Your task to perform on an android device: delete location history Image 0: 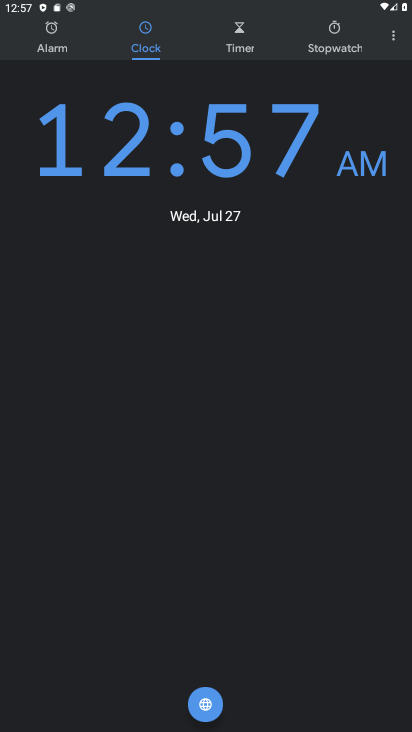
Step 0: press home button
Your task to perform on an android device: delete location history Image 1: 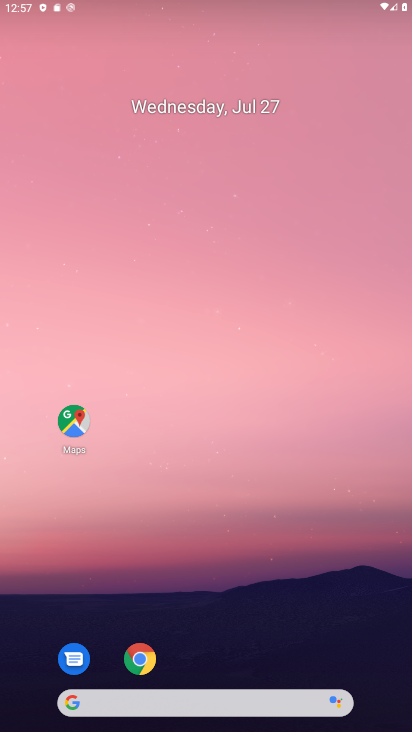
Step 1: drag from (268, 578) to (371, 87)
Your task to perform on an android device: delete location history Image 2: 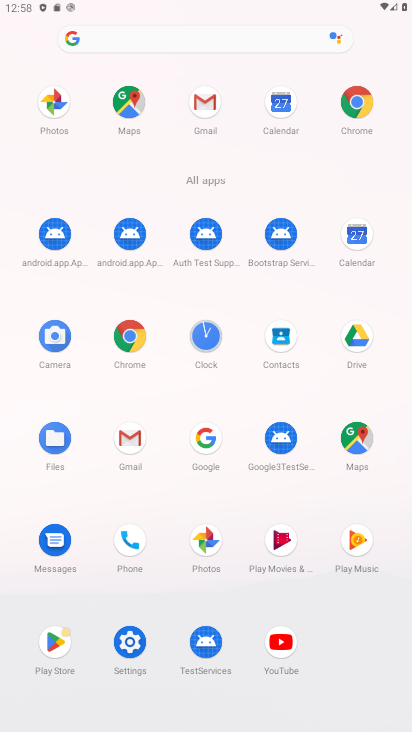
Step 2: click (358, 436)
Your task to perform on an android device: delete location history Image 3: 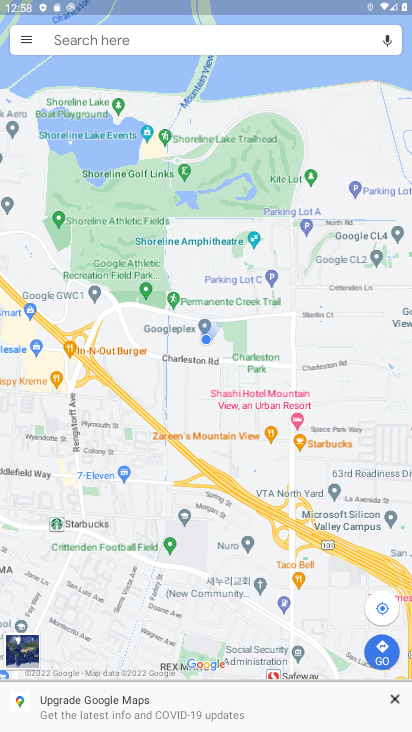
Step 3: click (31, 40)
Your task to perform on an android device: delete location history Image 4: 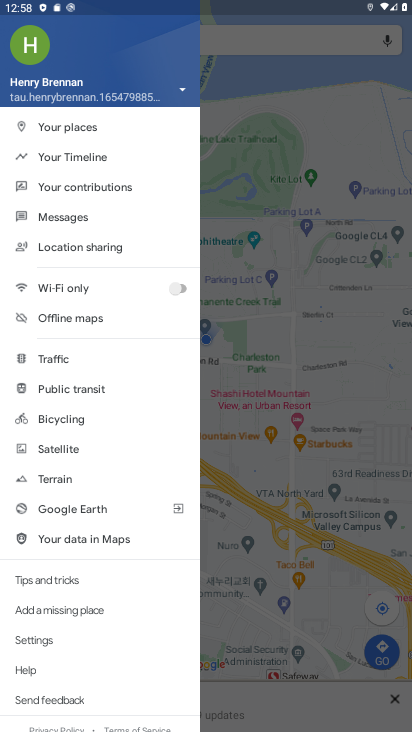
Step 4: click (99, 165)
Your task to perform on an android device: delete location history Image 5: 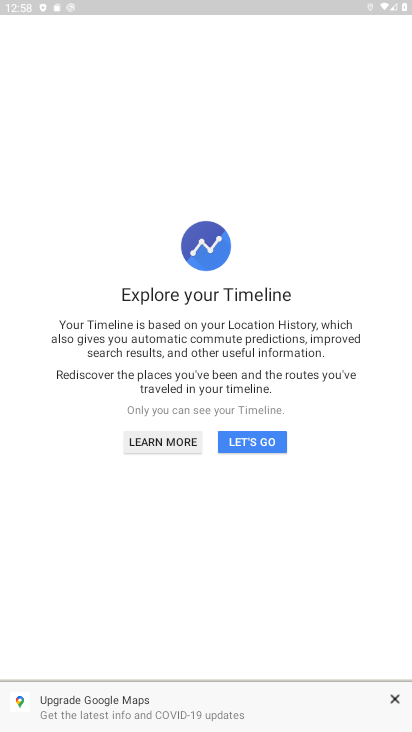
Step 5: click (258, 439)
Your task to perform on an android device: delete location history Image 6: 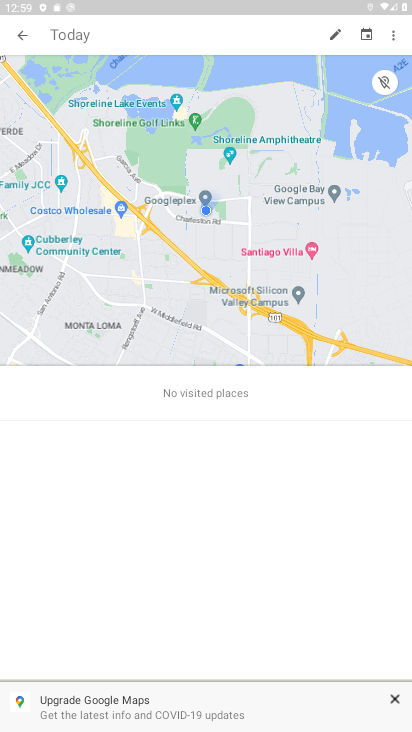
Step 6: click (399, 34)
Your task to perform on an android device: delete location history Image 7: 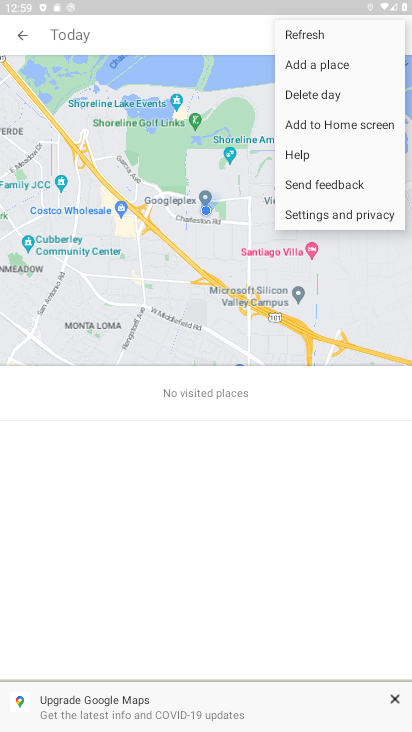
Step 7: click (325, 211)
Your task to perform on an android device: delete location history Image 8: 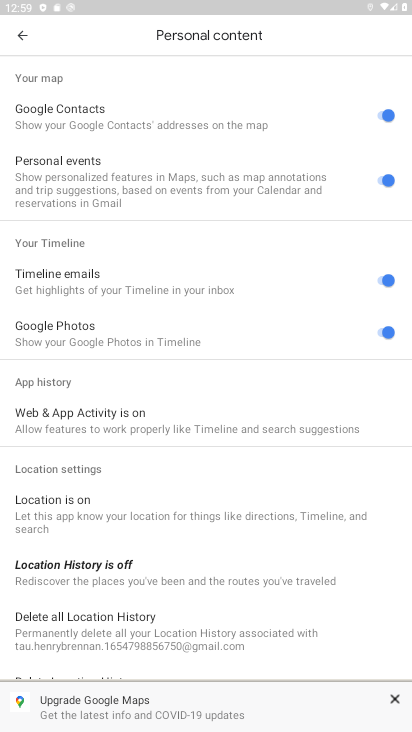
Step 8: drag from (144, 627) to (174, 265)
Your task to perform on an android device: delete location history Image 9: 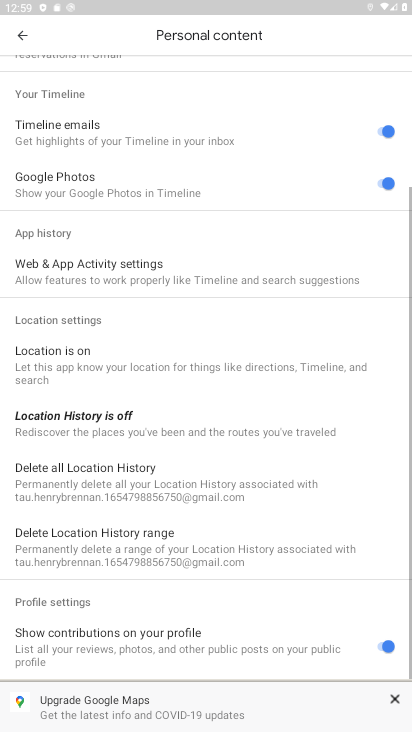
Step 9: click (91, 477)
Your task to perform on an android device: delete location history Image 10: 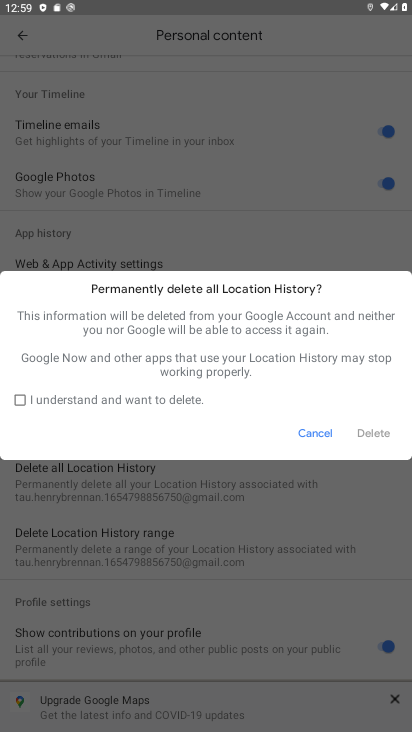
Step 10: click (17, 404)
Your task to perform on an android device: delete location history Image 11: 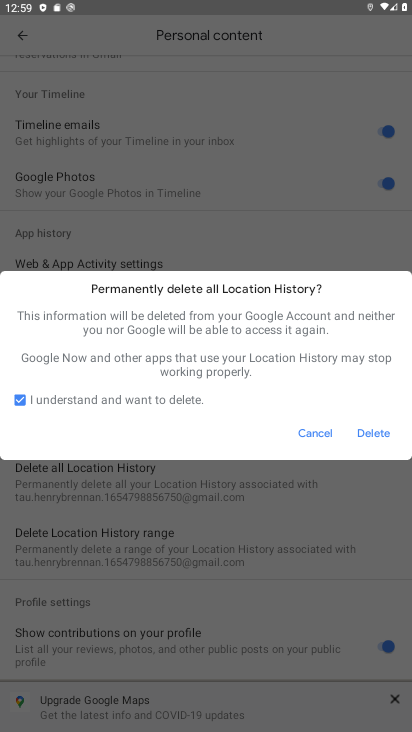
Step 11: click (367, 436)
Your task to perform on an android device: delete location history Image 12: 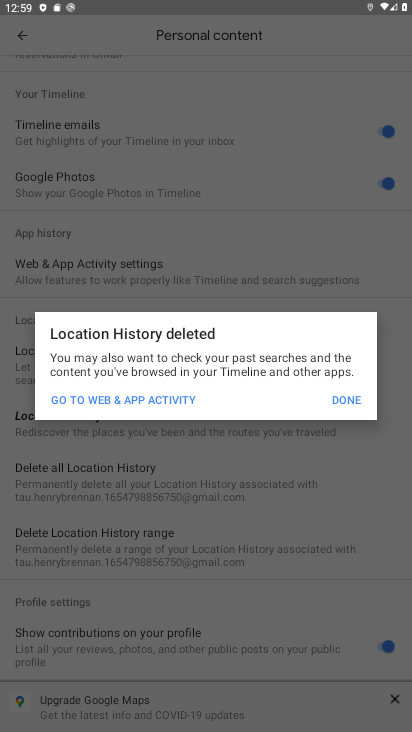
Step 12: click (344, 407)
Your task to perform on an android device: delete location history Image 13: 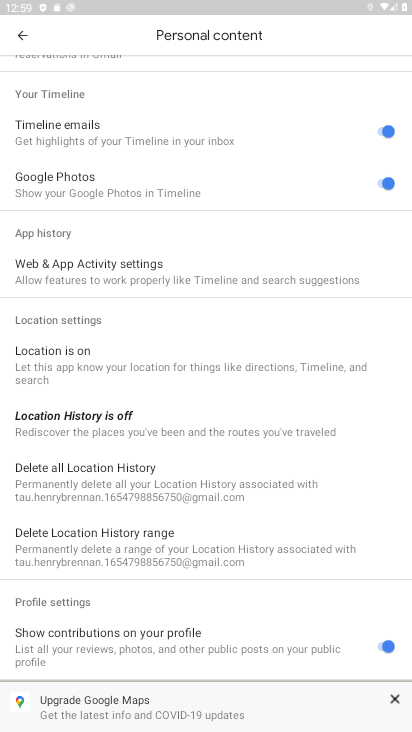
Step 13: task complete